Your task to perform on an android device: Open settings Image 0: 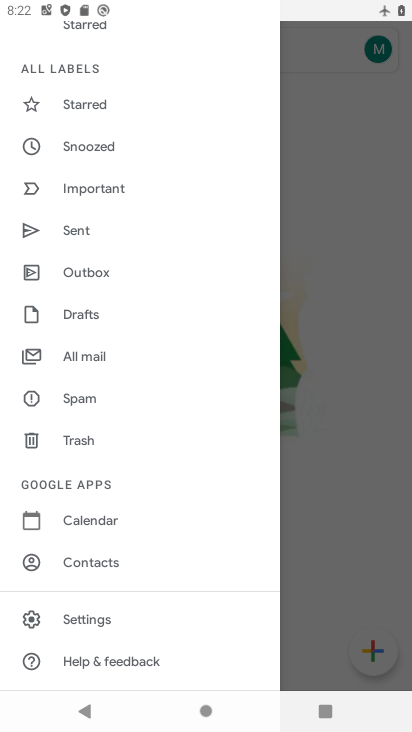
Step 0: press home button
Your task to perform on an android device: Open settings Image 1: 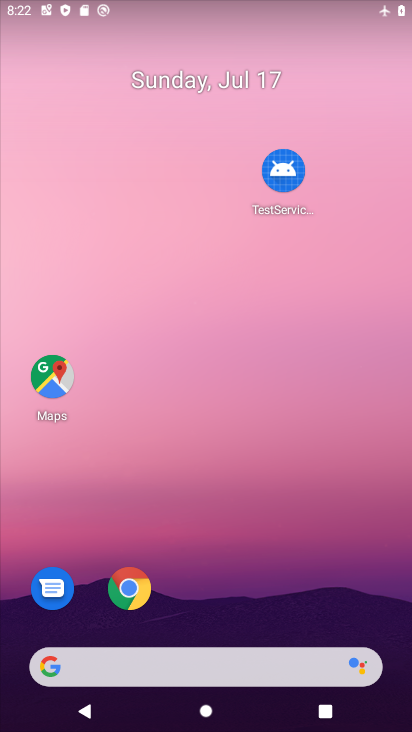
Step 1: drag from (205, 699) to (222, 174)
Your task to perform on an android device: Open settings Image 2: 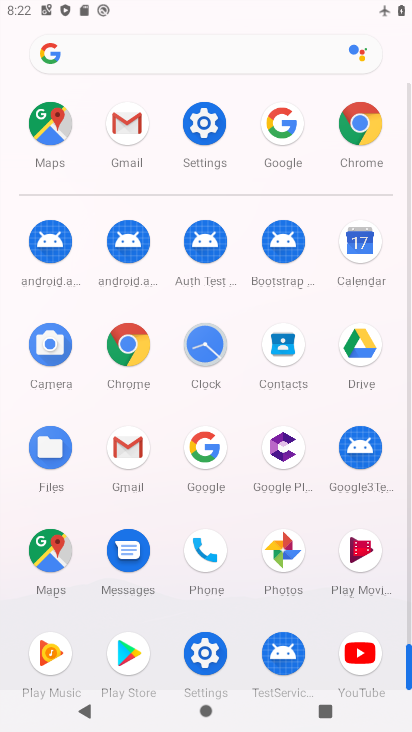
Step 2: click (209, 146)
Your task to perform on an android device: Open settings Image 3: 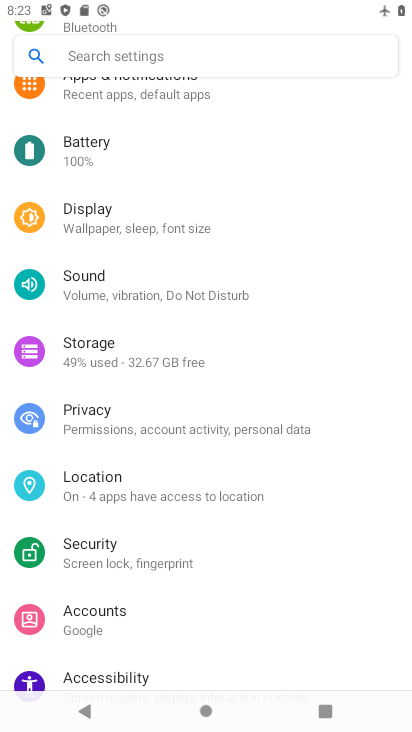
Step 3: task complete